Your task to perform on an android device: Open Chrome and go to the settings page Image 0: 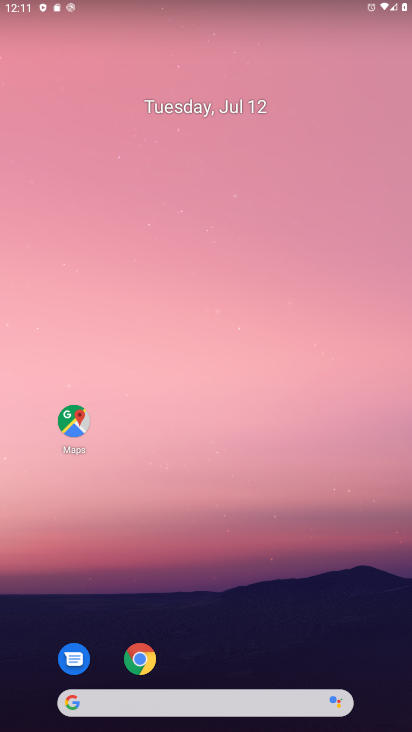
Step 0: click (260, 154)
Your task to perform on an android device: Open Chrome and go to the settings page Image 1: 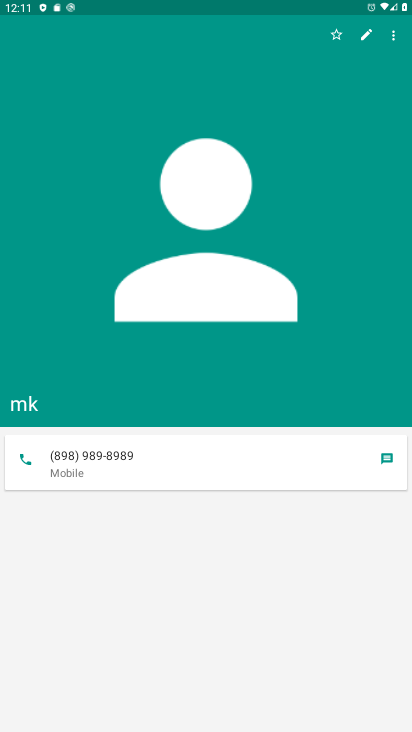
Step 1: drag from (178, 634) to (242, 375)
Your task to perform on an android device: Open Chrome and go to the settings page Image 2: 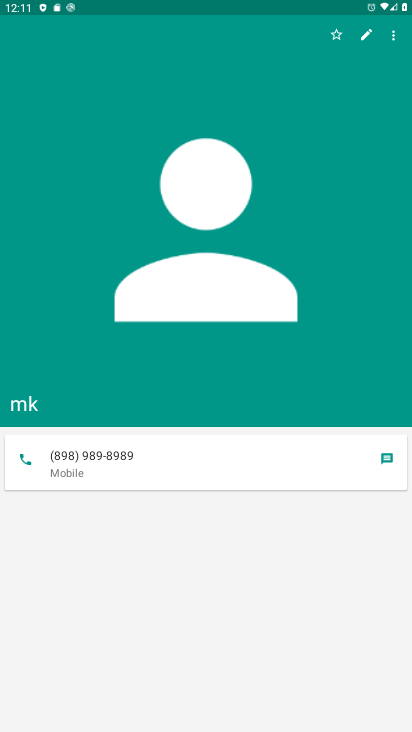
Step 2: drag from (197, 611) to (236, 288)
Your task to perform on an android device: Open Chrome and go to the settings page Image 3: 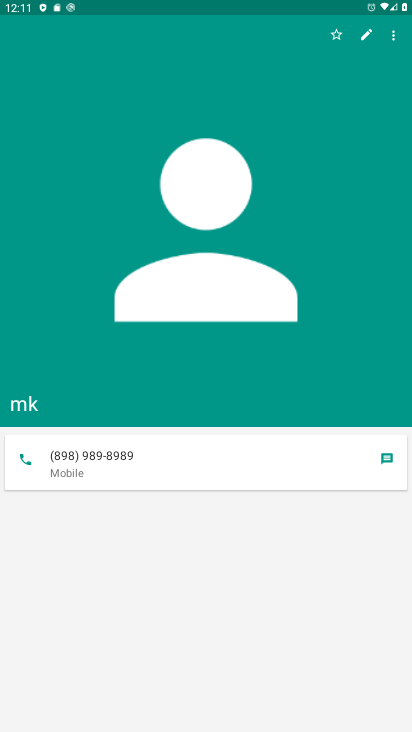
Step 3: press home button
Your task to perform on an android device: Open Chrome and go to the settings page Image 4: 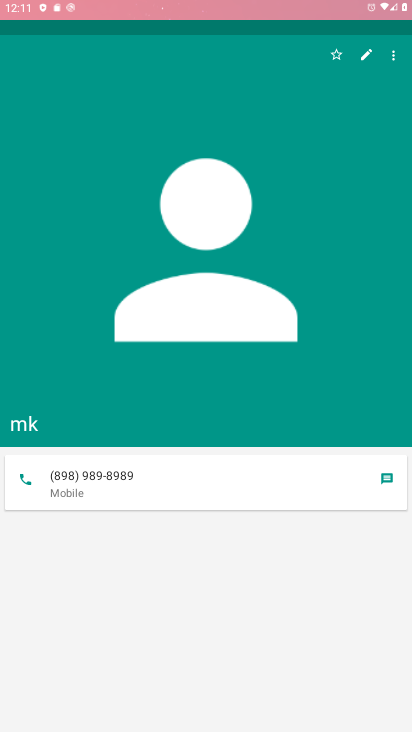
Step 4: drag from (215, 610) to (307, 28)
Your task to perform on an android device: Open Chrome and go to the settings page Image 5: 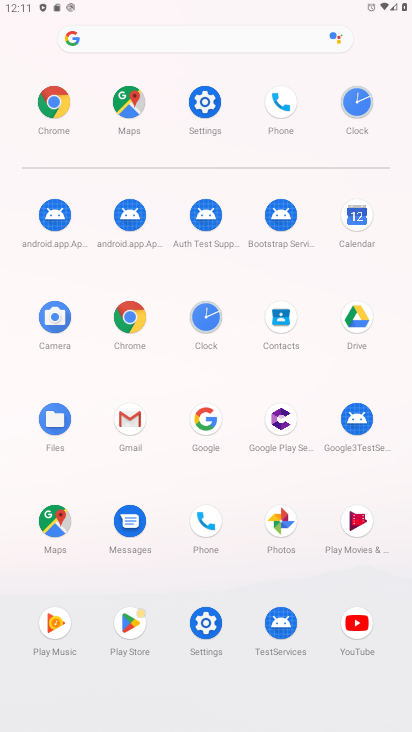
Step 5: click (124, 311)
Your task to perform on an android device: Open Chrome and go to the settings page Image 6: 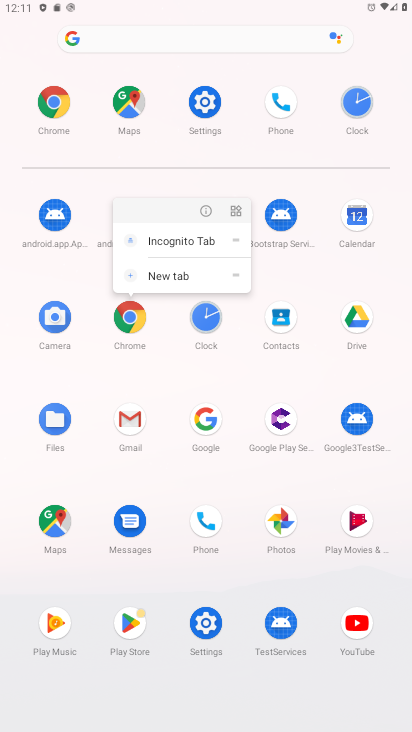
Step 6: click (208, 206)
Your task to perform on an android device: Open Chrome and go to the settings page Image 7: 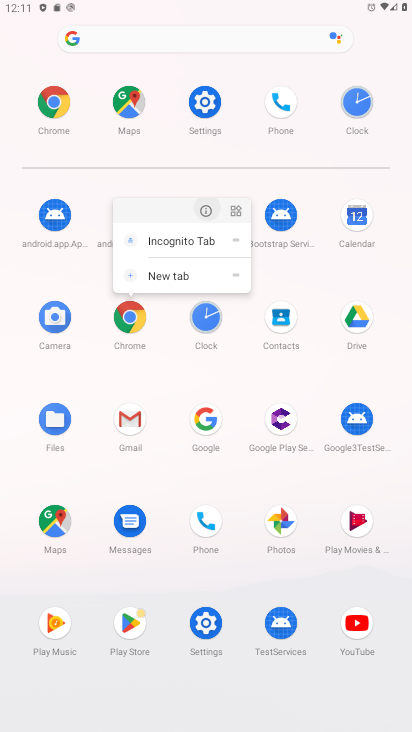
Step 7: click (208, 206)
Your task to perform on an android device: Open Chrome and go to the settings page Image 8: 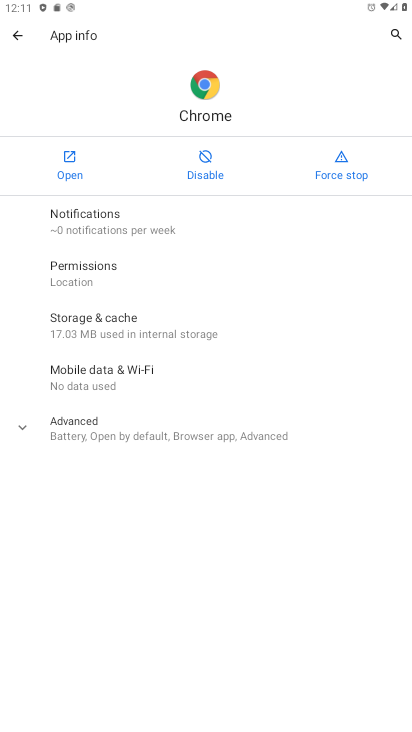
Step 8: click (71, 169)
Your task to perform on an android device: Open Chrome and go to the settings page Image 9: 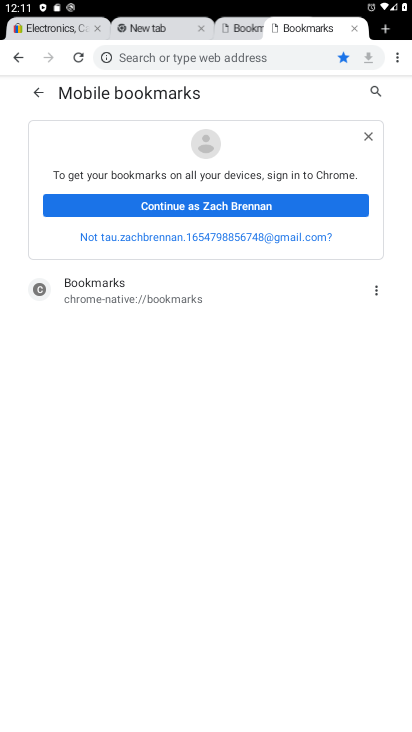
Step 9: drag from (134, 647) to (165, 139)
Your task to perform on an android device: Open Chrome and go to the settings page Image 10: 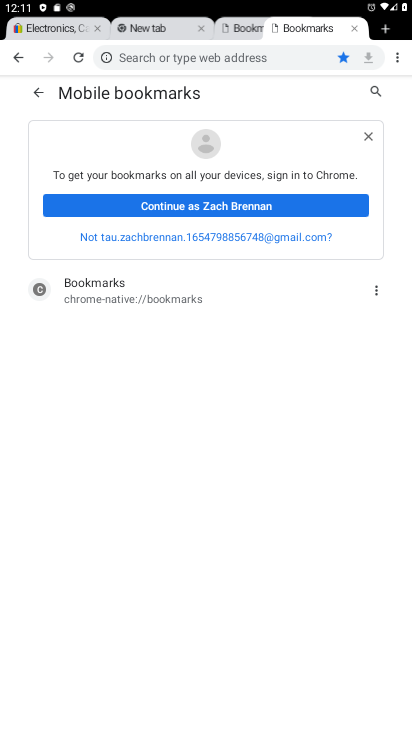
Step 10: click (394, 56)
Your task to perform on an android device: Open Chrome and go to the settings page Image 11: 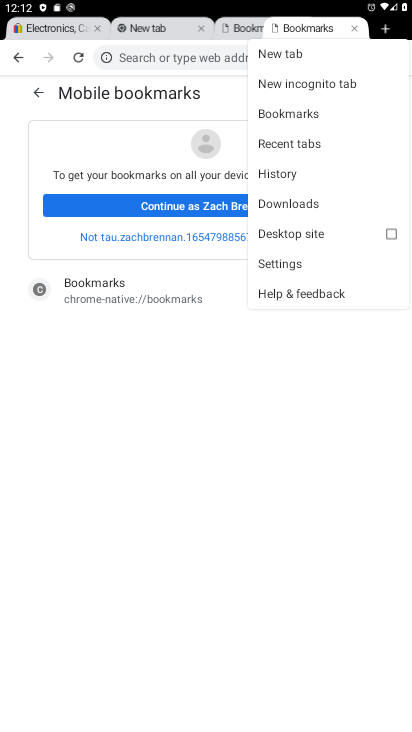
Step 11: click (284, 271)
Your task to perform on an android device: Open Chrome and go to the settings page Image 12: 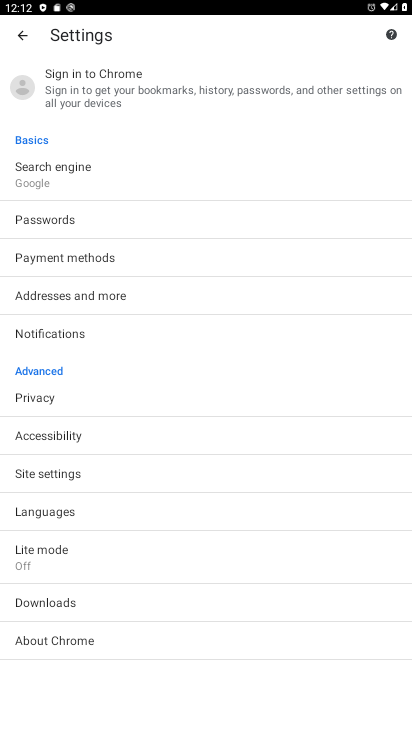
Step 12: task complete